Your task to perform on an android device: Show me recent news Image 0: 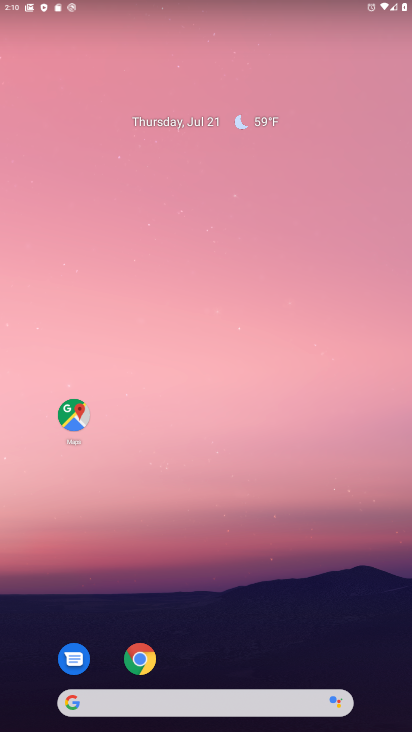
Step 0: drag from (301, 595) to (122, 30)
Your task to perform on an android device: Show me recent news Image 1: 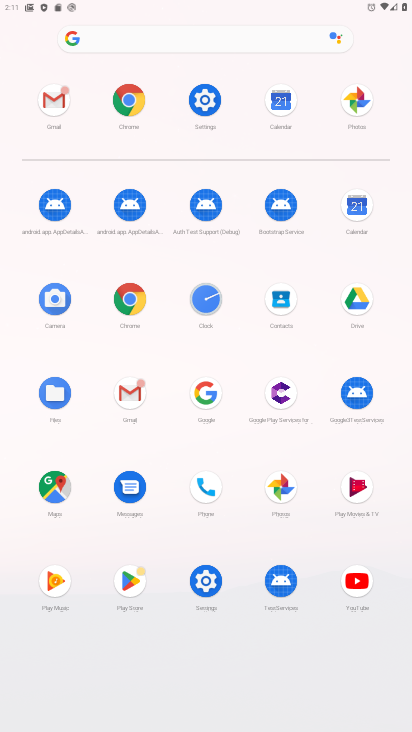
Step 1: click (120, 101)
Your task to perform on an android device: Show me recent news Image 2: 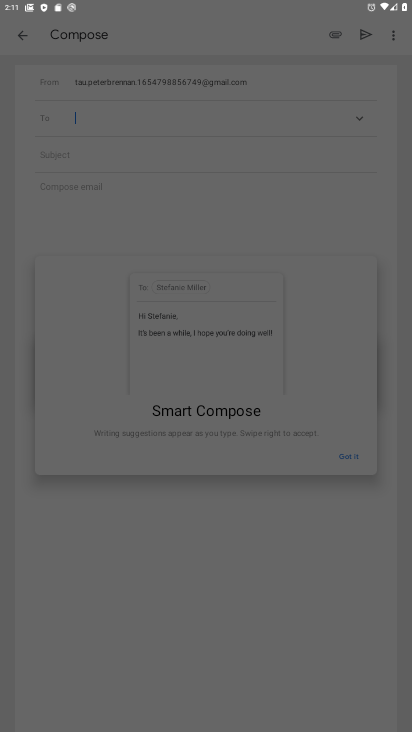
Step 2: press home button
Your task to perform on an android device: Show me recent news Image 3: 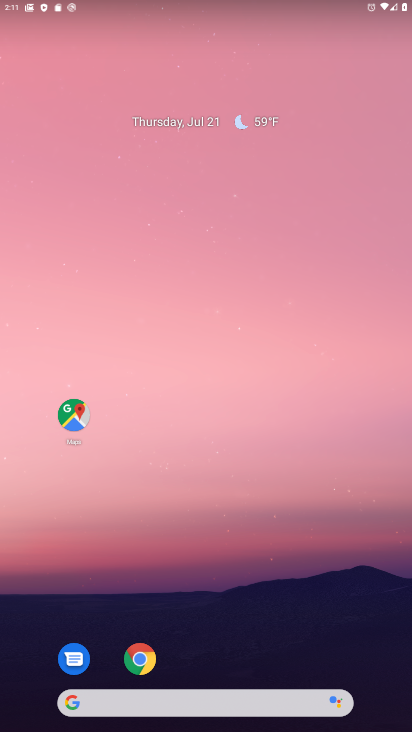
Step 3: drag from (248, 468) to (170, 57)
Your task to perform on an android device: Show me recent news Image 4: 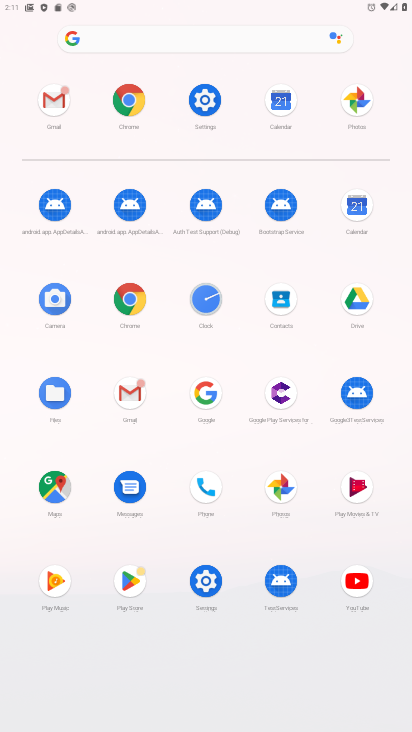
Step 4: click (125, 102)
Your task to perform on an android device: Show me recent news Image 5: 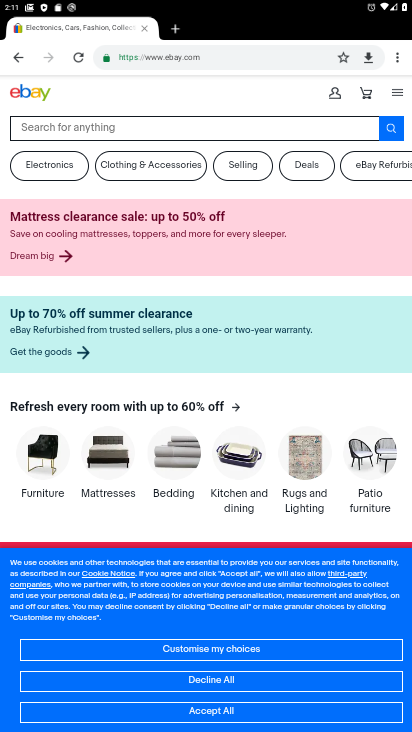
Step 5: click (194, 52)
Your task to perform on an android device: Show me recent news Image 6: 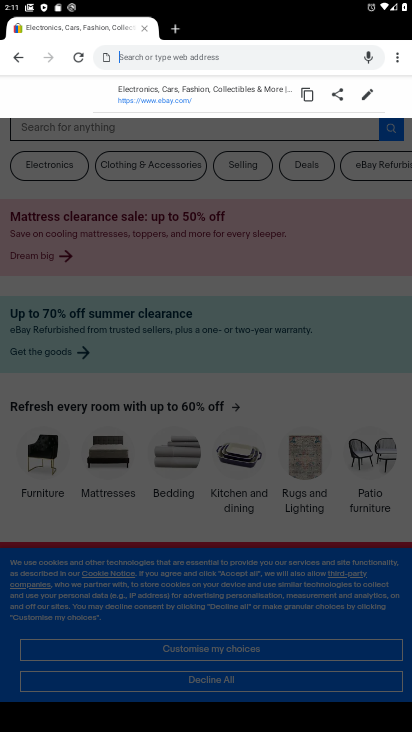
Step 6: type "news"
Your task to perform on an android device: Show me recent news Image 7: 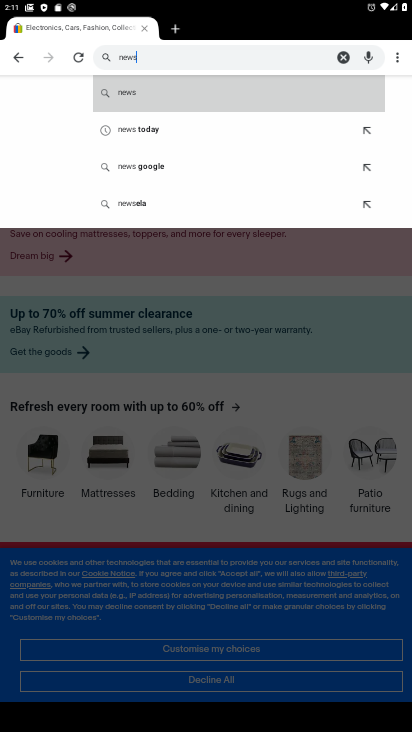
Step 7: click (147, 96)
Your task to perform on an android device: Show me recent news Image 8: 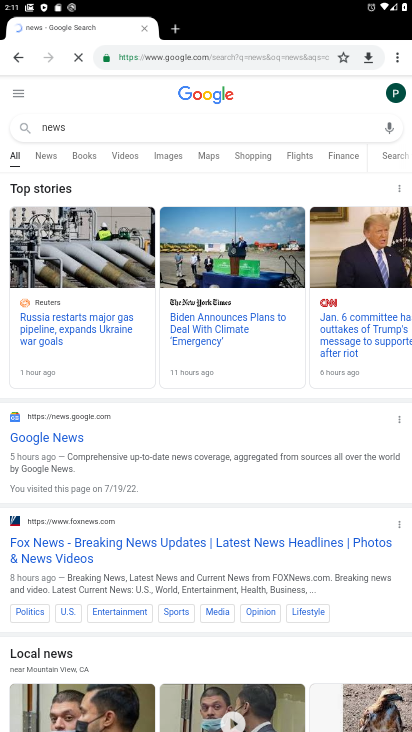
Step 8: click (50, 434)
Your task to perform on an android device: Show me recent news Image 9: 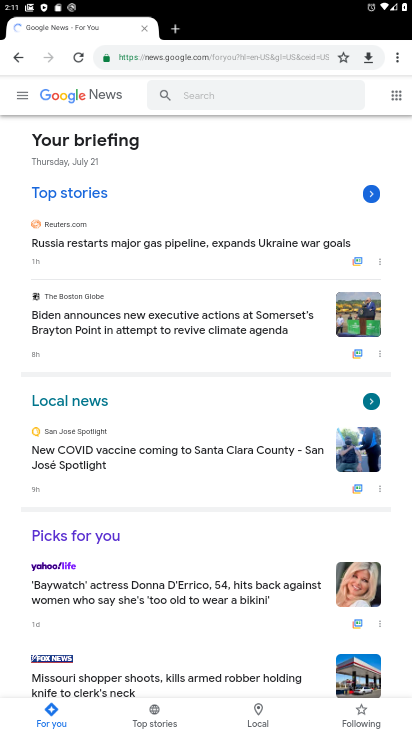
Step 9: task complete